Your task to perform on an android device: Go to network settings Image 0: 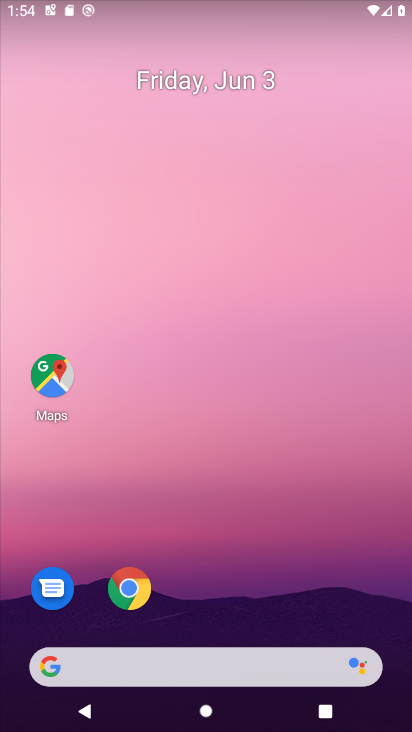
Step 0: drag from (198, 612) to (264, 67)
Your task to perform on an android device: Go to network settings Image 1: 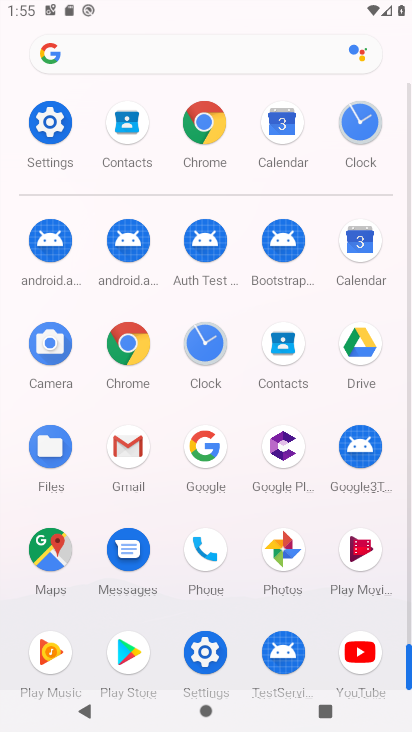
Step 1: click (63, 123)
Your task to perform on an android device: Go to network settings Image 2: 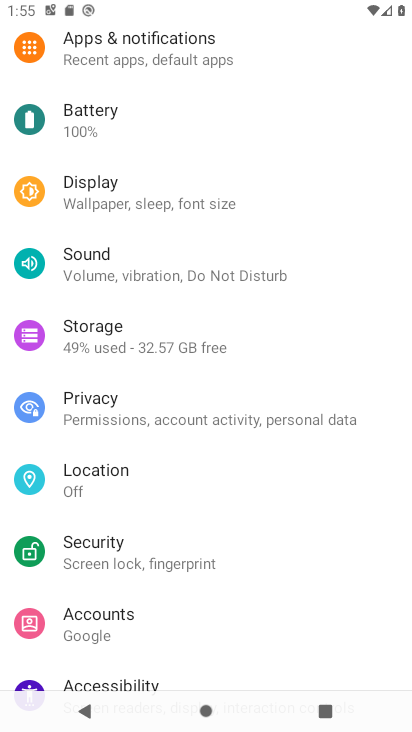
Step 2: drag from (161, 220) to (118, 660)
Your task to perform on an android device: Go to network settings Image 3: 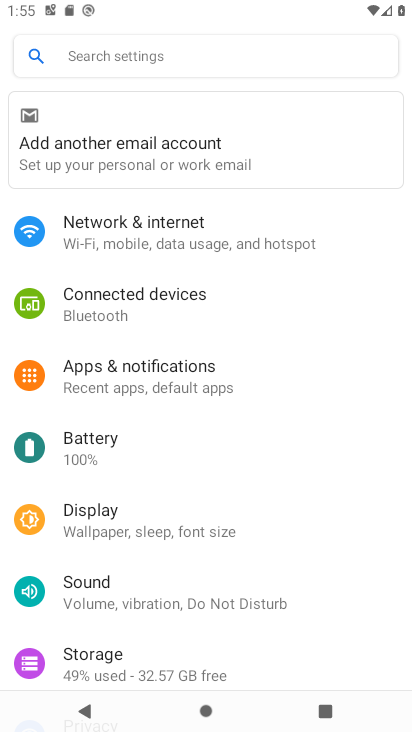
Step 3: click (201, 260)
Your task to perform on an android device: Go to network settings Image 4: 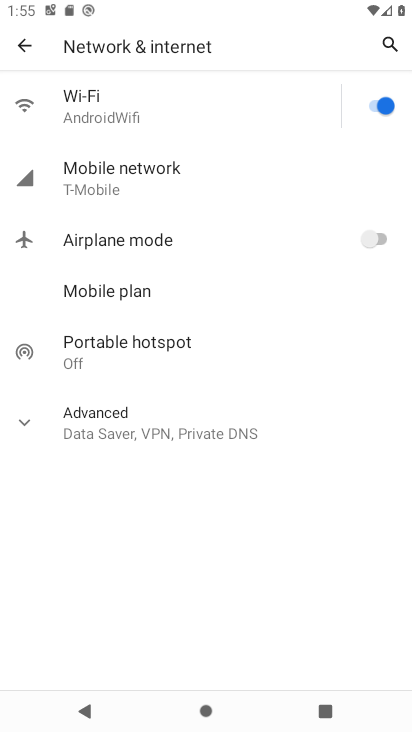
Step 4: click (151, 189)
Your task to perform on an android device: Go to network settings Image 5: 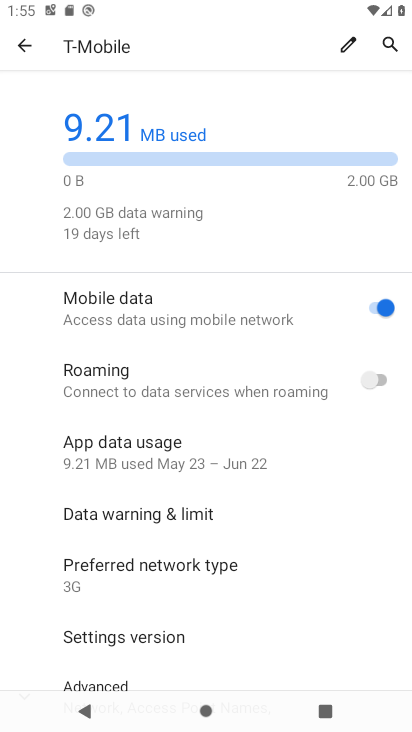
Step 5: task complete